Your task to perform on an android device: change keyboard looks Image 0: 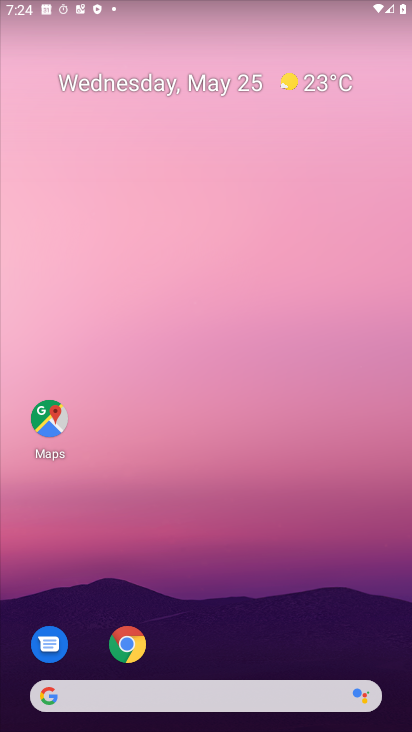
Step 0: drag from (285, 700) to (209, 229)
Your task to perform on an android device: change keyboard looks Image 1: 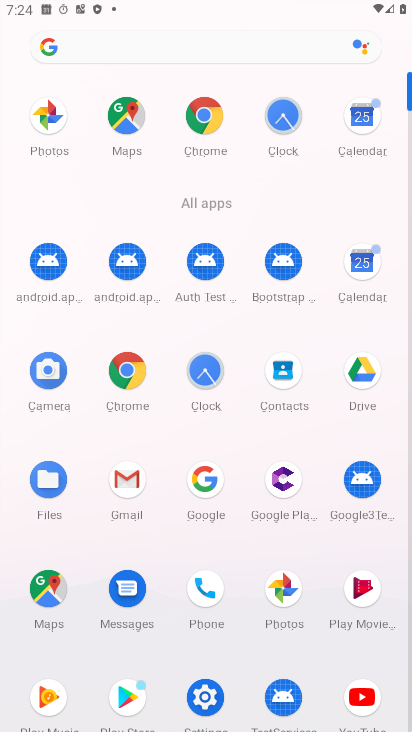
Step 1: click (212, 694)
Your task to perform on an android device: change keyboard looks Image 2: 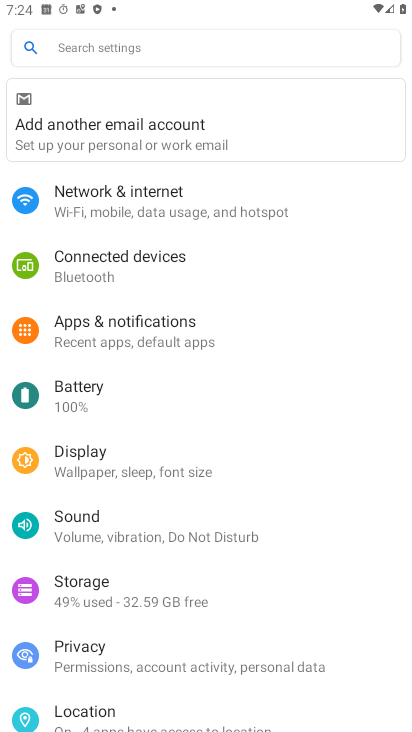
Step 2: click (156, 59)
Your task to perform on an android device: change keyboard looks Image 3: 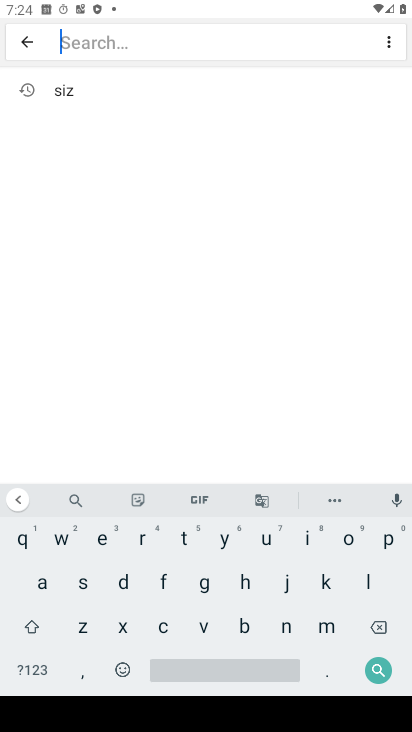
Step 3: click (325, 584)
Your task to perform on an android device: change keyboard looks Image 4: 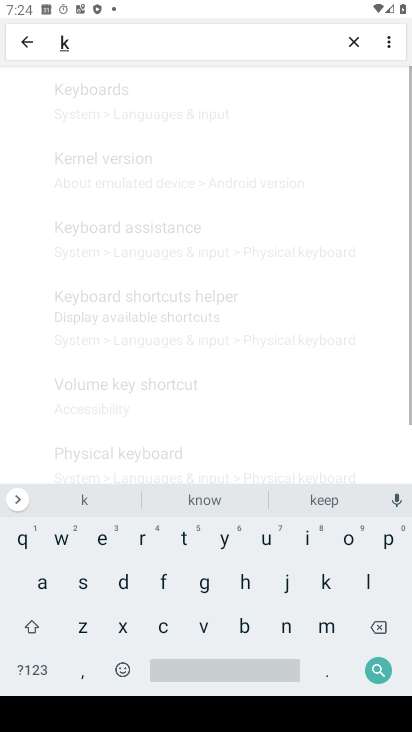
Step 4: click (100, 533)
Your task to perform on an android device: change keyboard looks Image 5: 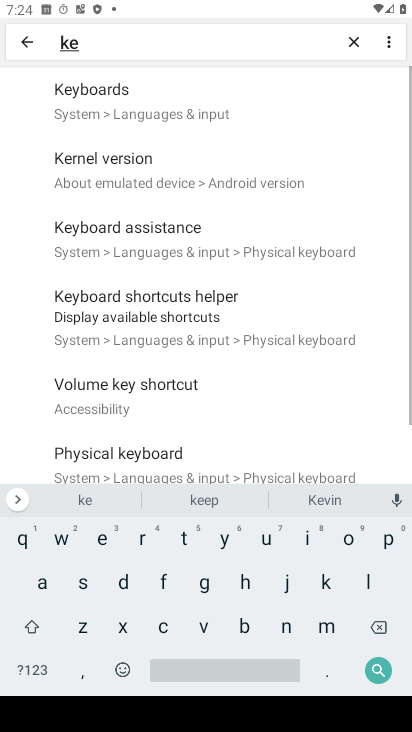
Step 5: click (200, 99)
Your task to perform on an android device: change keyboard looks Image 6: 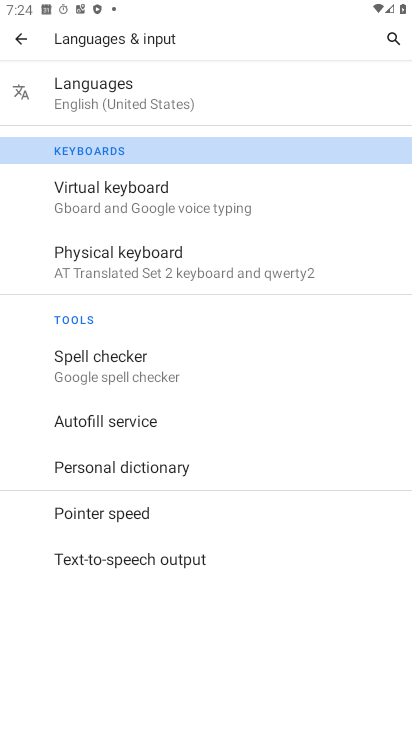
Step 6: click (157, 201)
Your task to perform on an android device: change keyboard looks Image 7: 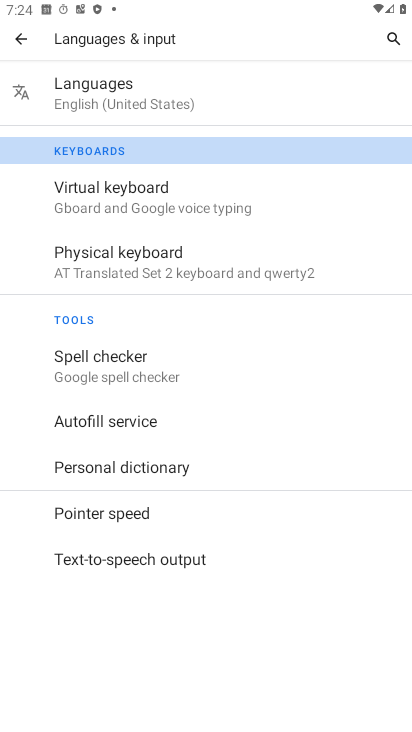
Step 7: click (161, 191)
Your task to perform on an android device: change keyboard looks Image 8: 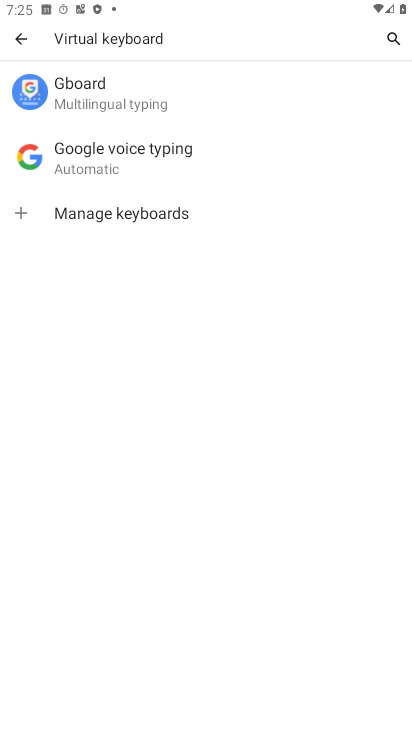
Step 8: click (133, 112)
Your task to perform on an android device: change keyboard looks Image 9: 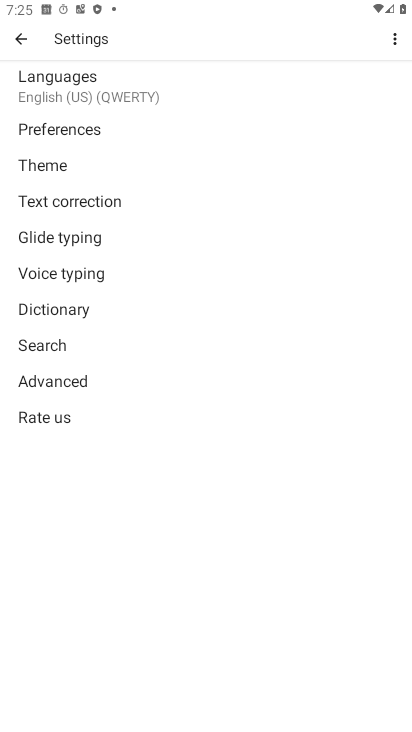
Step 9: click (112, 156)
Your task to perform on an android device: change keyboard looks Image 10: 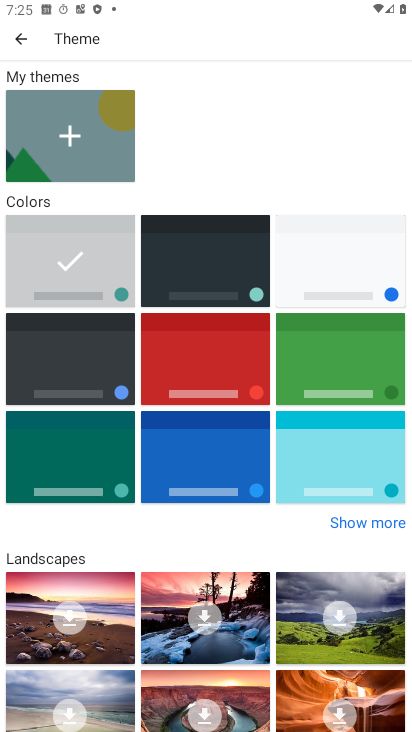
Step 10: click (76, 369)
Your task to perform on an android device: change keyboard looks Image 11: 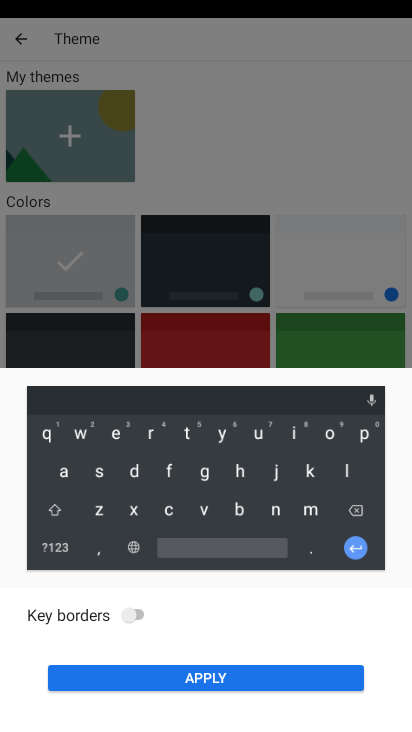
Step 11: click (135, 608)
Your task to perform on an android device: change keyboard looks Image 12: 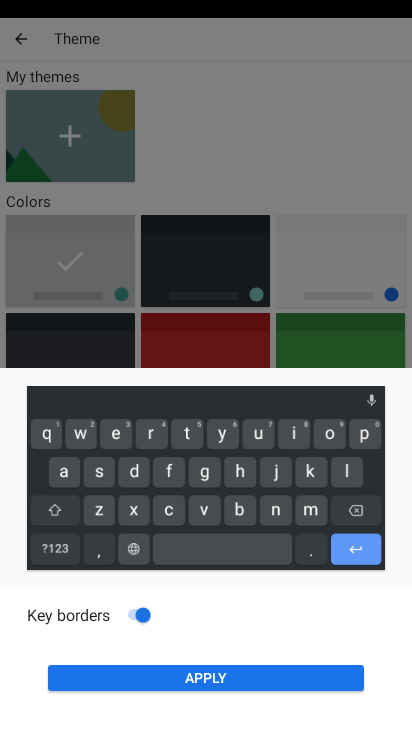
Step 12: click (209, 684)
Your task to perform on an android device: change keyboard looks Image 13: 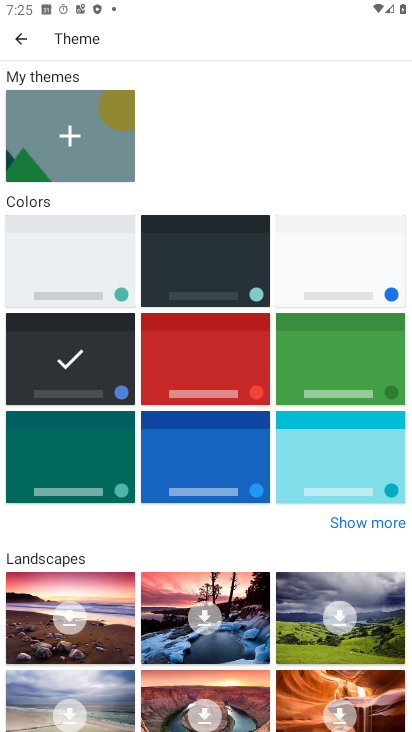
Step 13: task complete